Your task to perform on an android device: Open Chrome and go to settings Image 0: 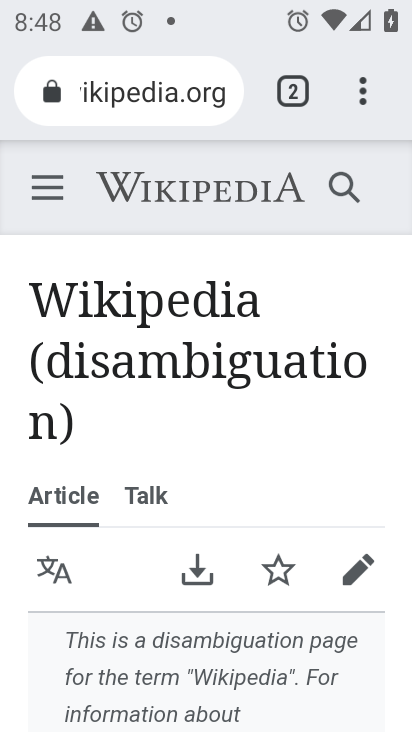
Step 0: click (358, 91)
Your task to perform on an android device: Open Chrome and go to settings Image 1: 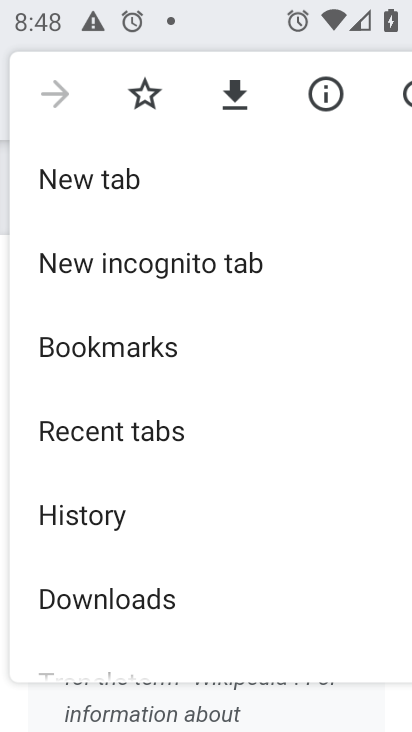
Step 1: drag from (173, 541) to (155, 148)
Your task to perform on an android device: Open Chrome and go to settings Image 2: 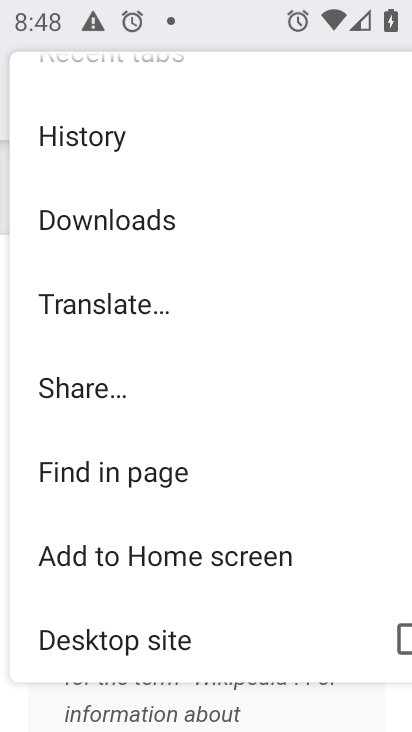
Step 2: drag from (114, 610) to (147, 252)
Your task to perform on an android device: Open Chrome and go to settings Image 3: 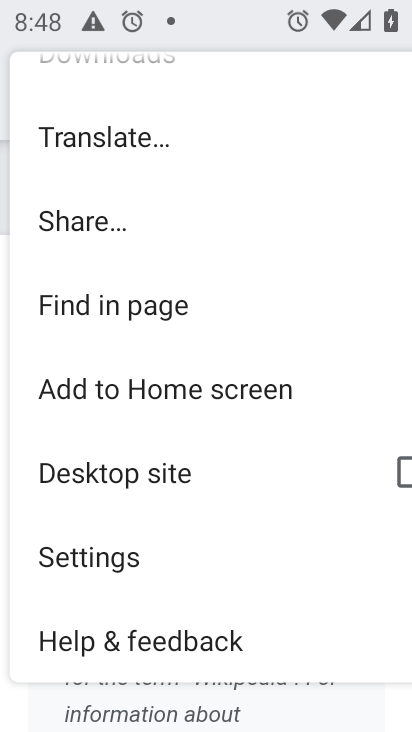
Step 3: click (92, 570)
Your task to perform on an android device: Open Chrome and go to settings Image 4: 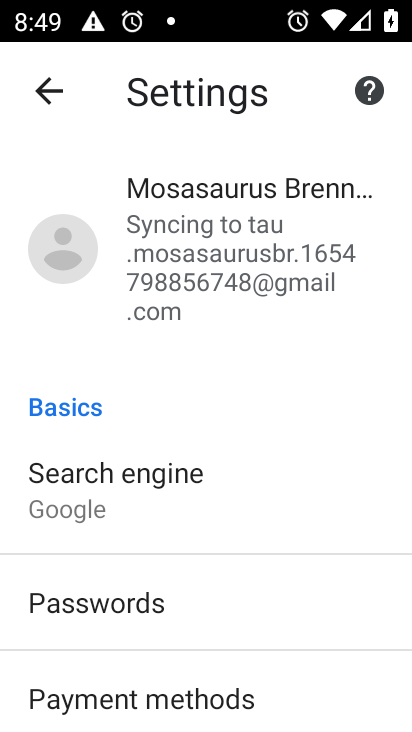
Step 4: task complete